Your task to perform on an android device: Open Google Chrome and click the shortcut for Amazon.com Image 0: 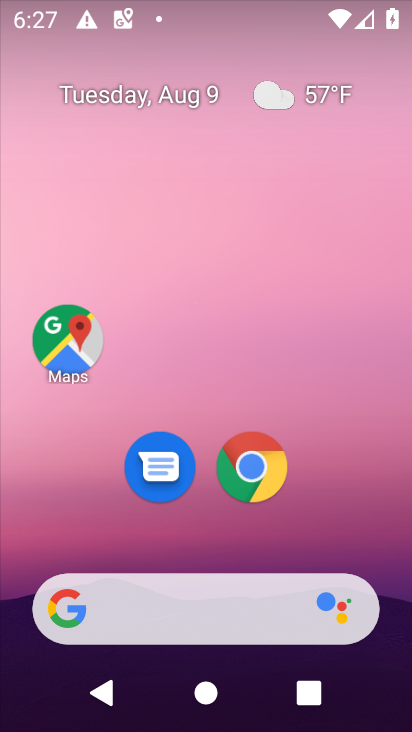
Step 0: click (260, 476)
Your task to perform on an android device: Open Google Chrome and click the shortcut for Amazon.com Image 1: 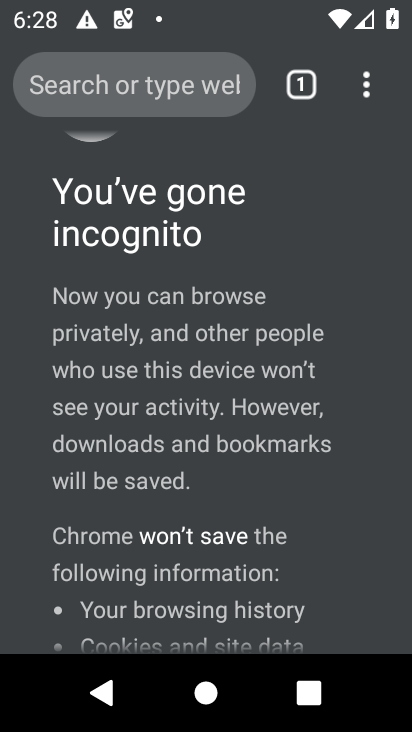
Step 1: click (294, 93)
Your task to perform on an android device: Open Google Chrome and click the shortcut for Amazon.com Image 2: 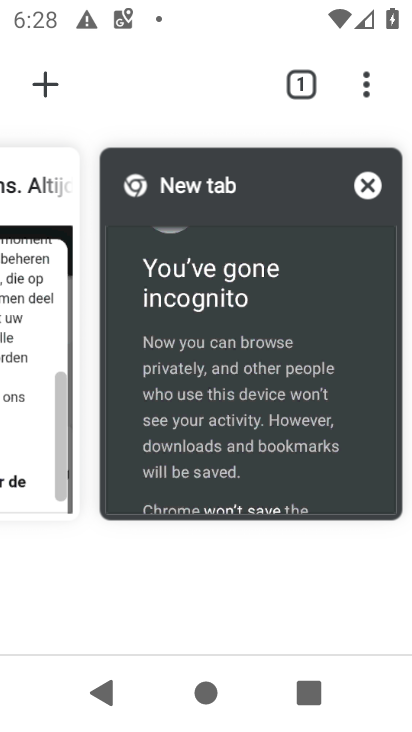
Step 2: click (361, 193)
Your task to perform on an android device: Open Google Chrome and click the shortcut for Amazon.com Image 3: 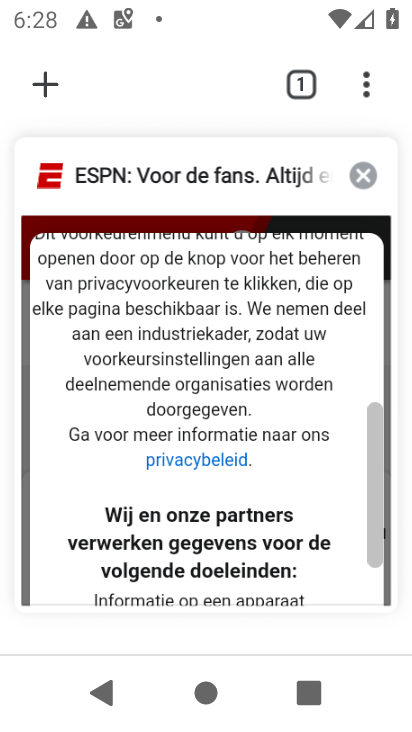
Step 3: click (361, 178)
Your task to perform on an android device: Open Google Chrome and click the shortcut for Amazon.com Image 4: 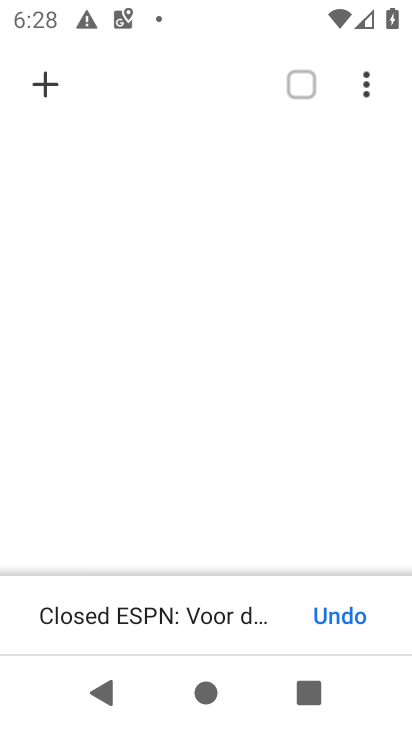
Step 4: click (43, 95)
Your task to perform on an android device: Open Google Chrome and click the shortcut for Amazon.com Image 5: 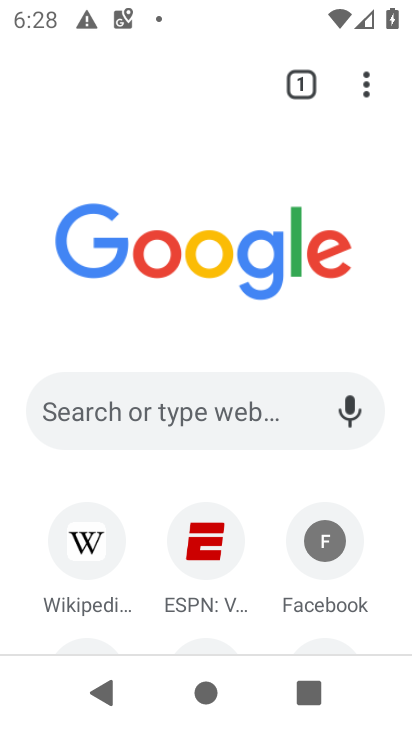
Step 5: drag from (265, 529) to (209, 168)
Your task to perform on an android device: Open Google Chrome and click the shortcut for Amazon.com Image 6: 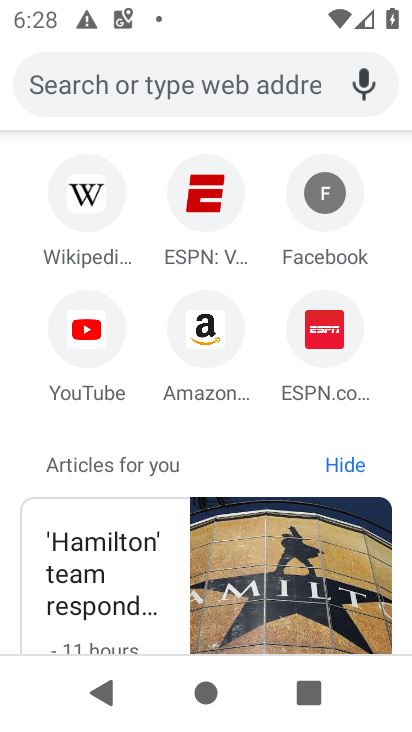
Step 6: click (216, 337)
Your task to perform on an android device: Open Google Chrome and click the shortcut for Amazon.com Image 7: 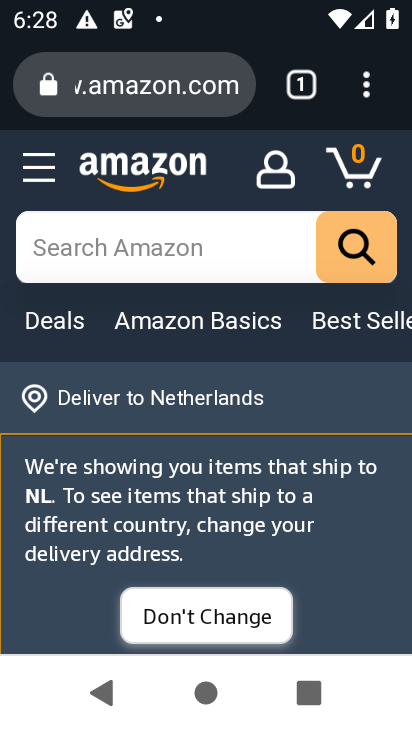
Step 7: task complete